Your task to perform on an android device: Go to Yahoo.com Image 0: 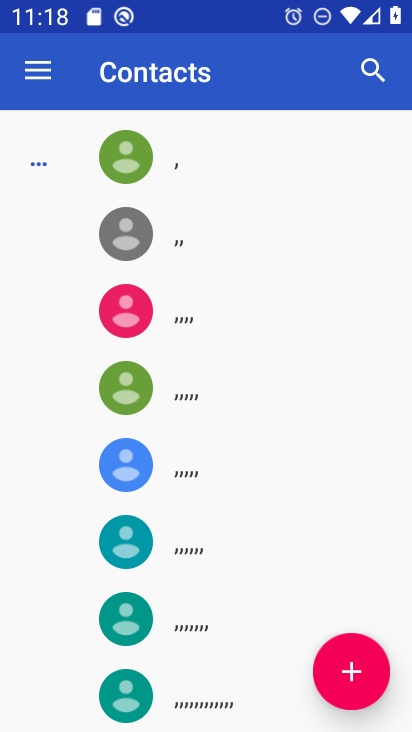
Step 0: press home button
Your task to perform on an android device: Go to Yahoo.com Image 1: 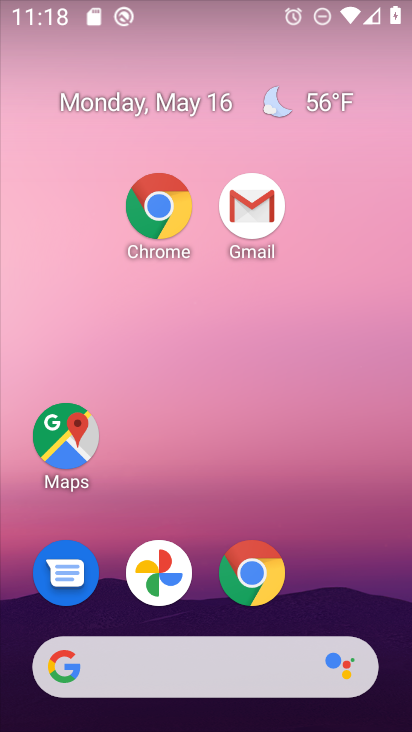
Step 1: drag from (259, 461) to (134, 169)
Your task to perform on an android device: Go to Yahoo.com Image 2: 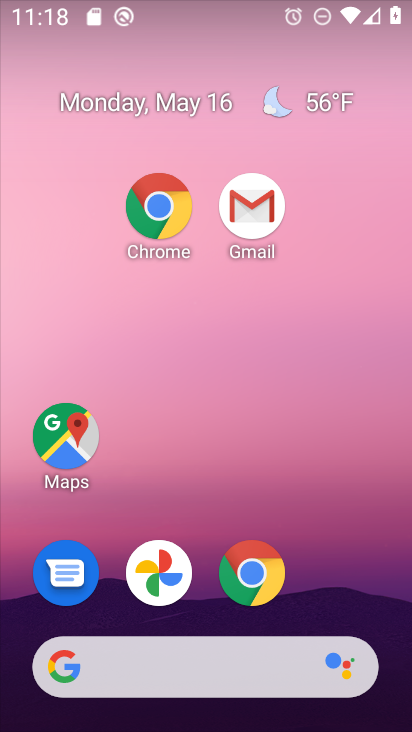
Step 2: drag from (388, 574) to (154, 144)
Your task to perform on an android device: Go to Yahoo.com Image 3: 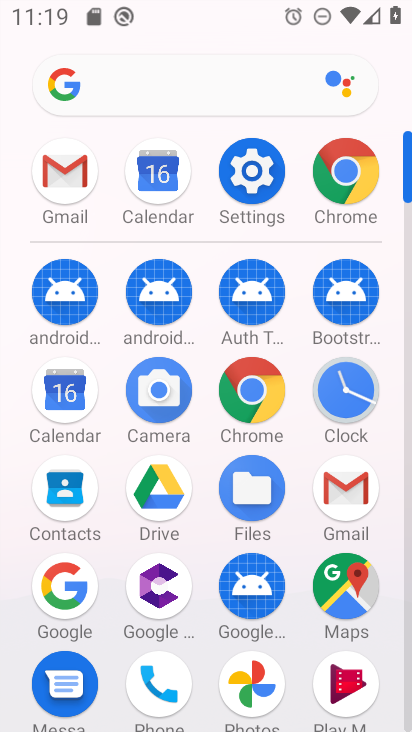
Step 3: click (331, 197)
Your task to perform on an android device: Go to Yahoo.com Image 4: 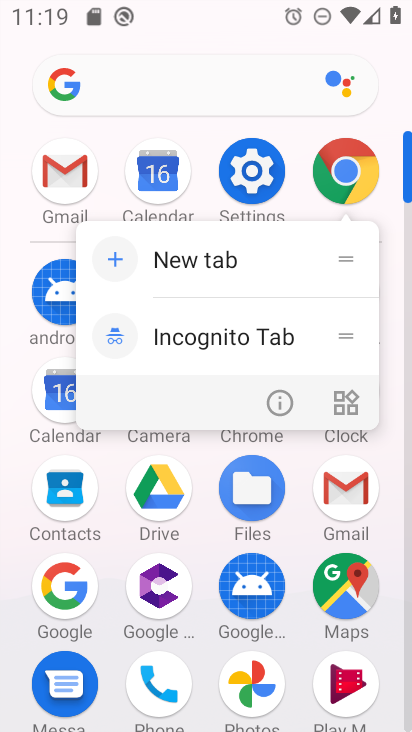
Step 4: click (223, 252)
Your task to perform on an android device: Go to Yahoo.com Image 5: 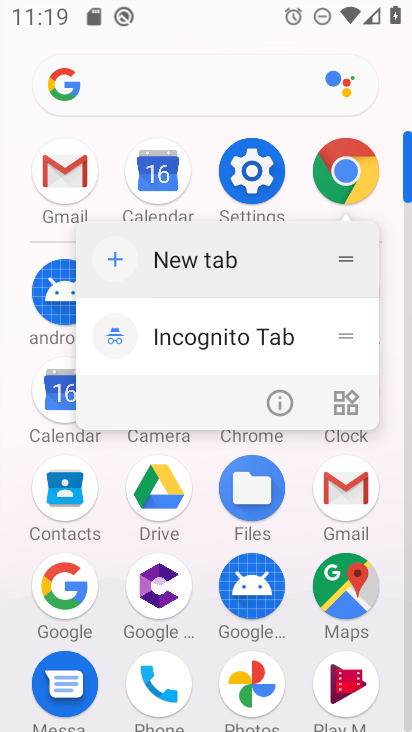
Step 5: click (222, 253)
Your task to perform on an android device: Go to Yahoo.com Image 6: 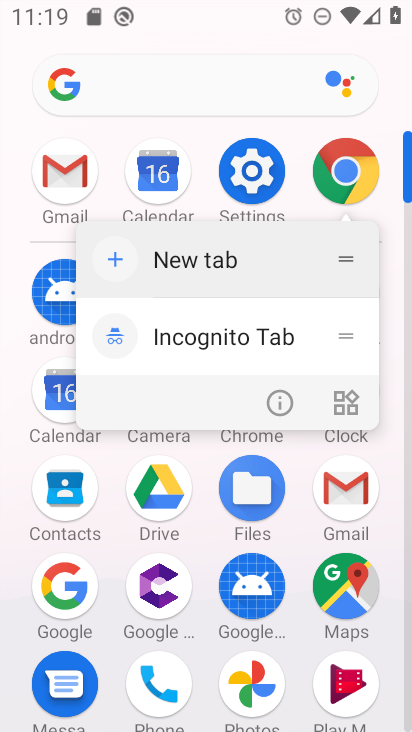
Step 6: click (221, 254)
Your task to perform on an android device: Go to Yahoo.com Image 7: 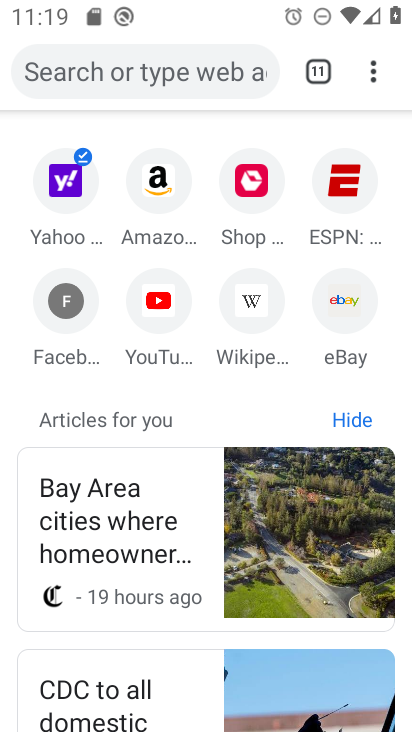
Step 7: click (62, 199)
Your task to perform on an android device: Go to Yahoo.com Image 8: 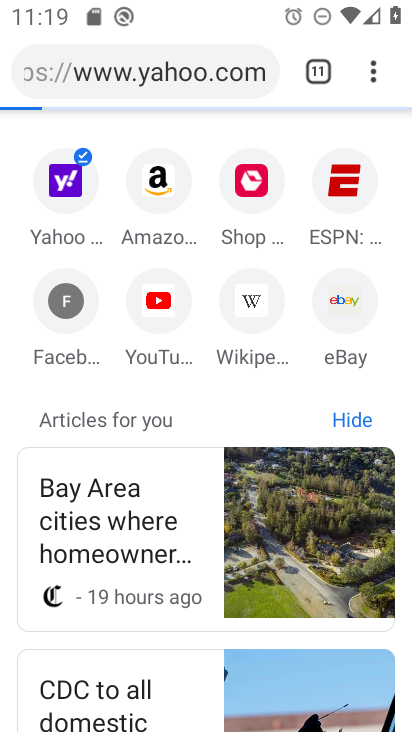
Step 8: click (63, 202)
Your task to perform on an android device: Go to Yahoo.com Image 9: 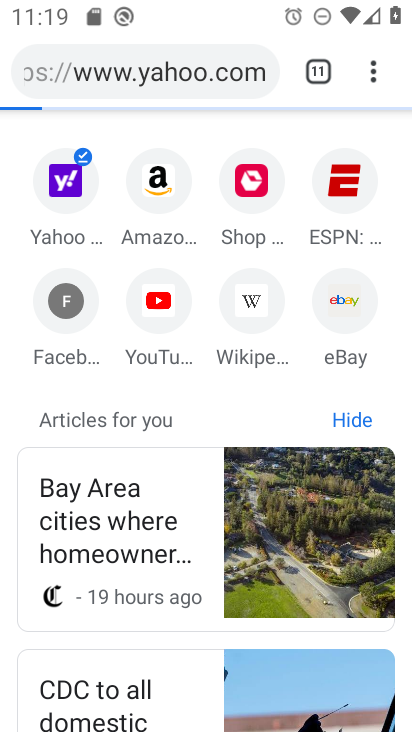
Step 9: click (59, 244)
Your task to perform on an android device: Go to Yahoo.com Image 10: 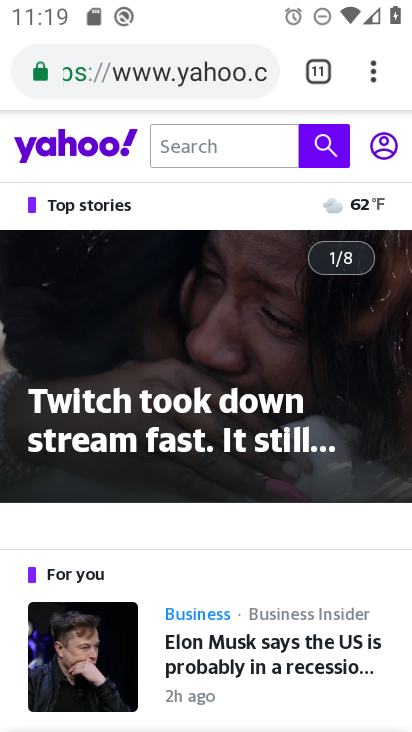
Step 10: task complete